Your task to perform on an android device: allow cookies in the chrome app Image 0: 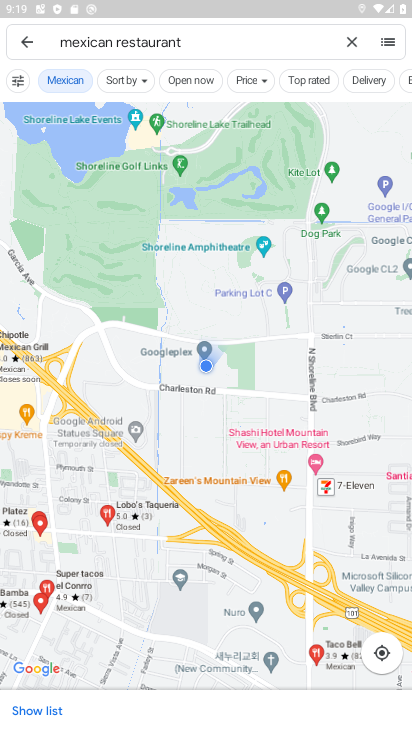
Step 0: press home button
Your task to perform on an android device: allow cookies in the chrome app Image 1: 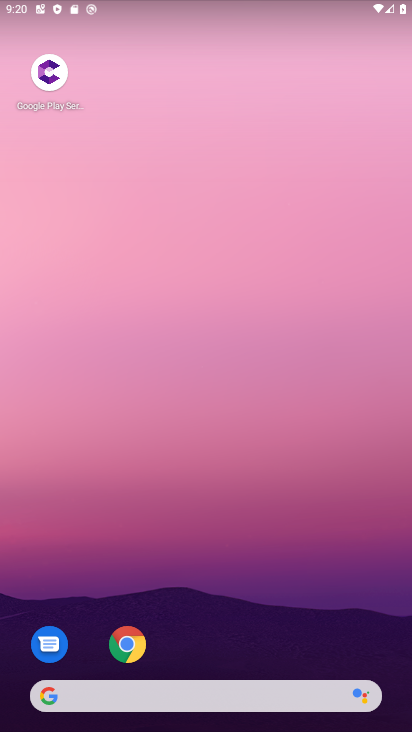
Step 1: click (142, 645)
Your task to perform on an android device: allow cookies in the chrome app Image 2: 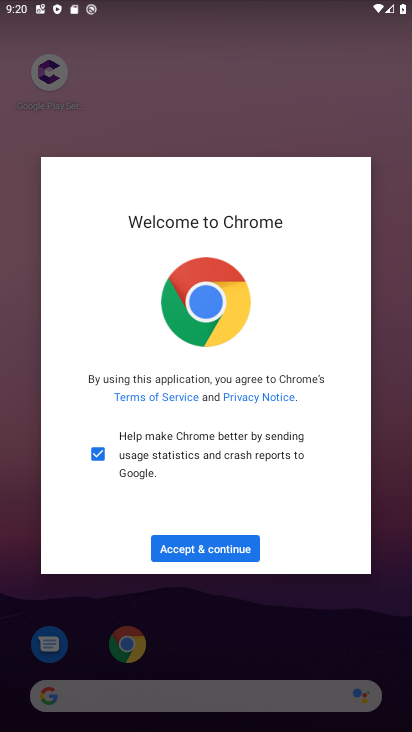
Step 2: click (197, 559)
Your task to perform on an android device: allow cookies in the chrome app Image 3: 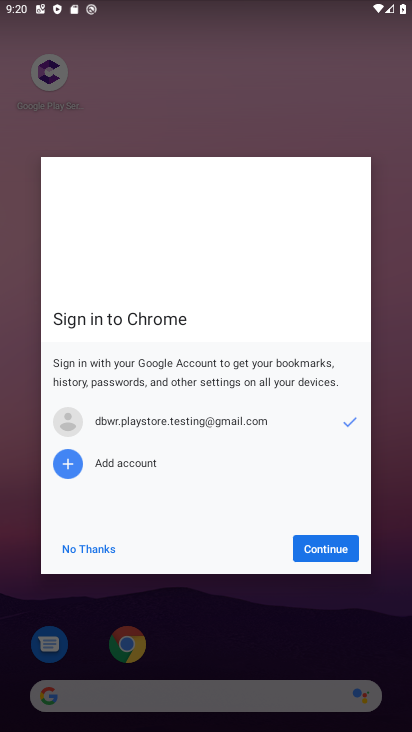
Step 3: click (318, 543)
Your task to perform on an android device: allow cookies in the chrome app Image 4: 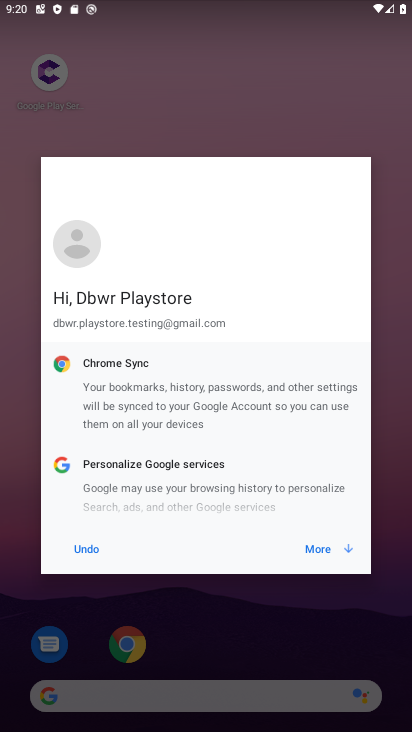
Step 4: click (318, 543)
Your task to perform on an android device: allow cookies in the chrome app Image 5: 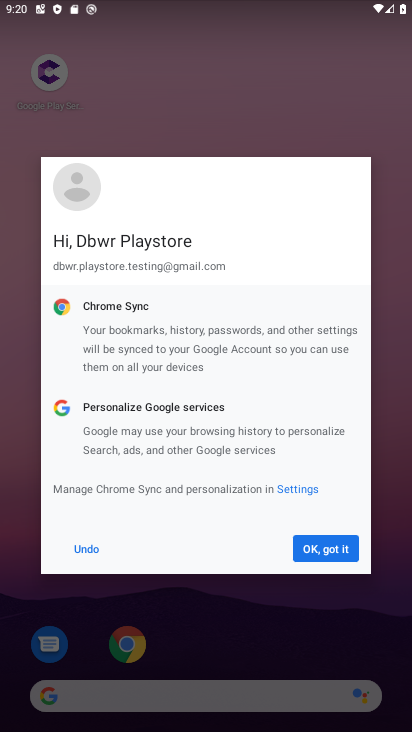
Step 5: click (318, 543)
Your task to perform on an android device: allow cookies in the chrome app Image 6: 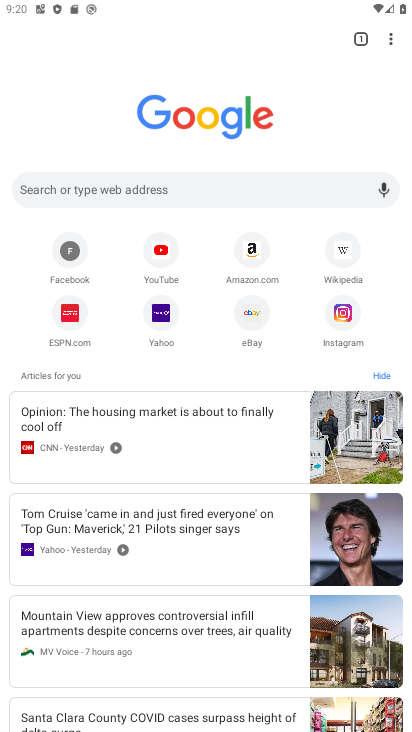
Step 6: click (379, 42)
Your task to perform on an android device: allow cookies in the chrome app Image 7: 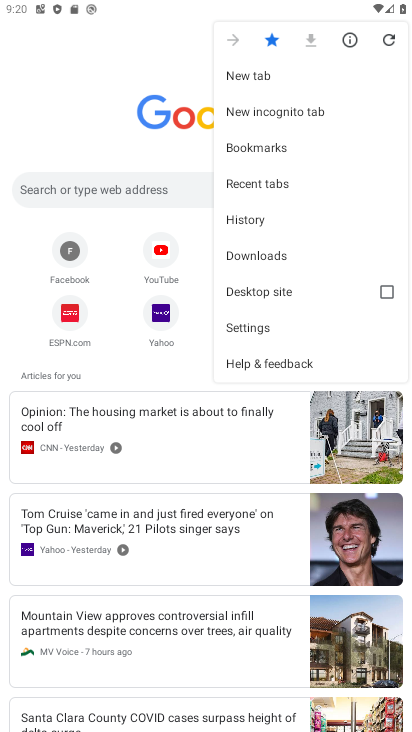
Step 7: click (251, 319)
Your task to perform on an android device: allow cookies in the chrome app Image 8: 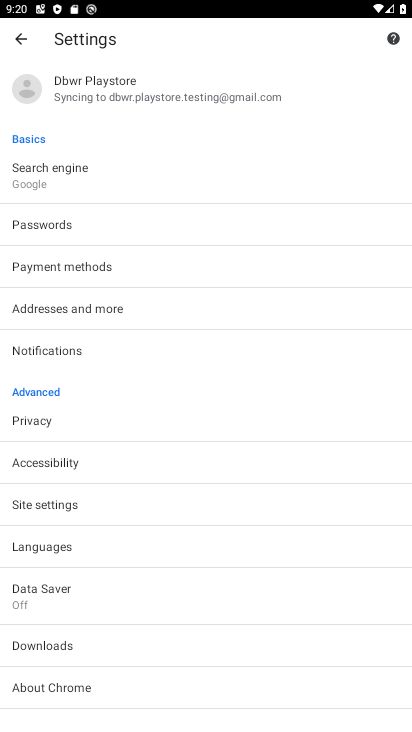
Step 8: click (179, 494)
Your task to perform on an android device: allow cookies in the chrome app Image 9: 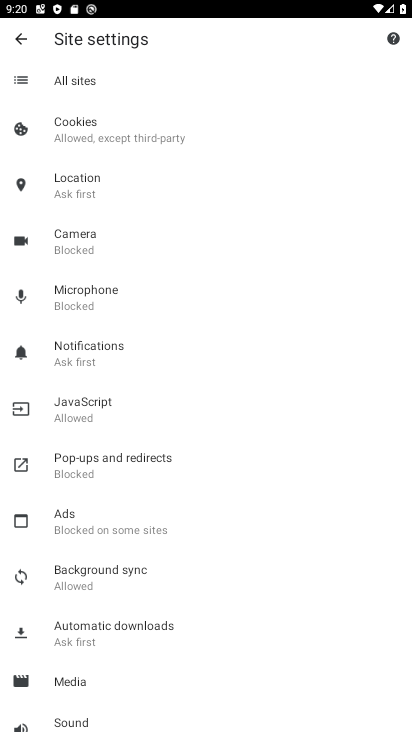
Step 9: task complete